Your task to perform on an android device: set the stopwatch Image 0: 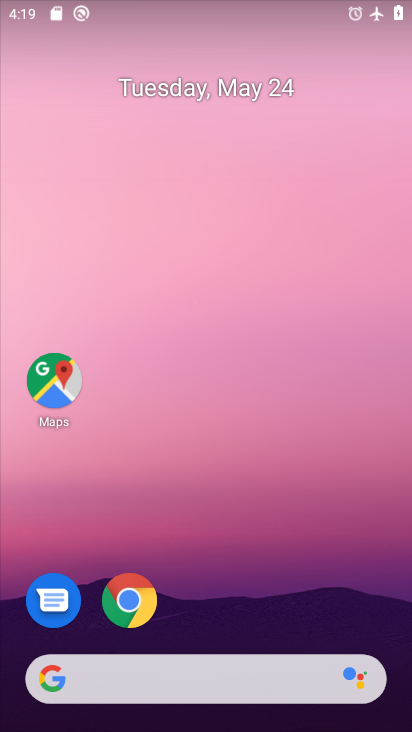
Step 0: drag from (269, 676) to (227, 0)
Your task to perform on an android device: set the stopwatch Image 1: 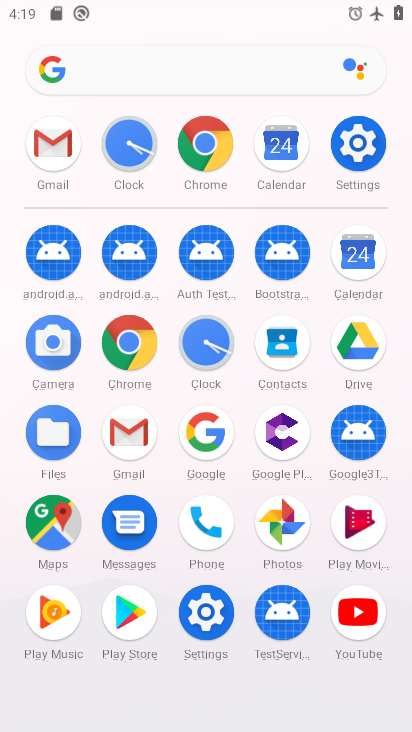
Step 1: click (206, 348)
Your task to perform on an android device: set the stopwatch Image 2: 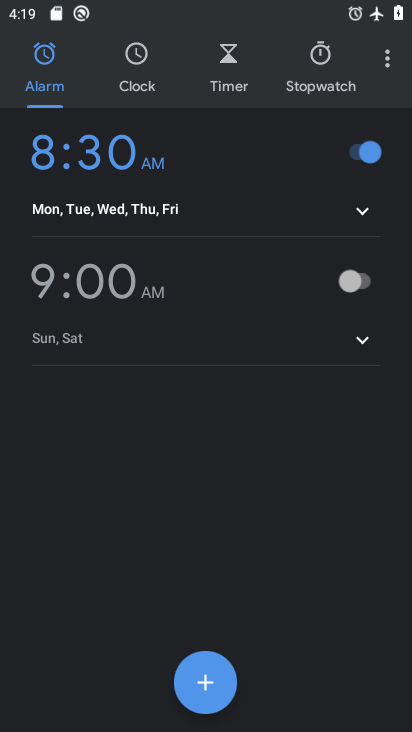
Step 2: click (332, 48)
Your task to perform on an android device: set the stopwatch Image 3: 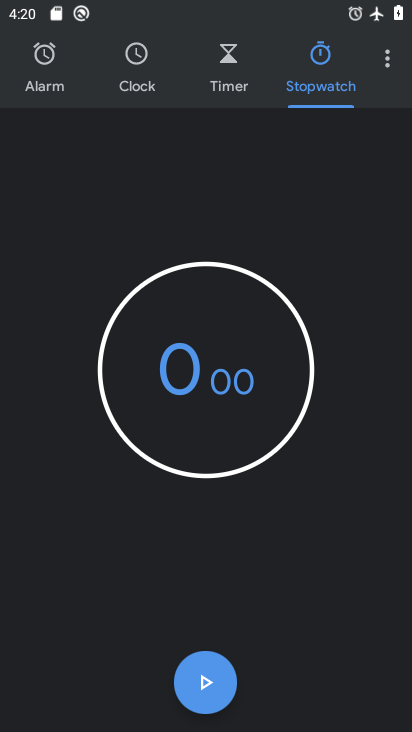
Step 3: click (217, 701)
Your task to perform on an android device: set the stopwatch Image 4: 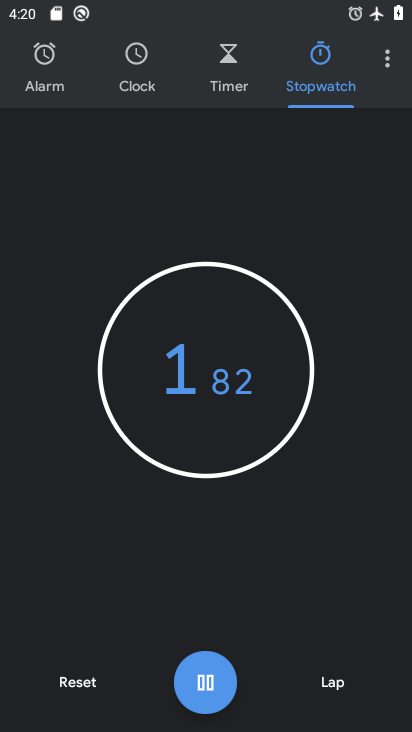
Step 4: task complete